Your task to perform on an android device: Is it going to rain this weekend? Image 0: 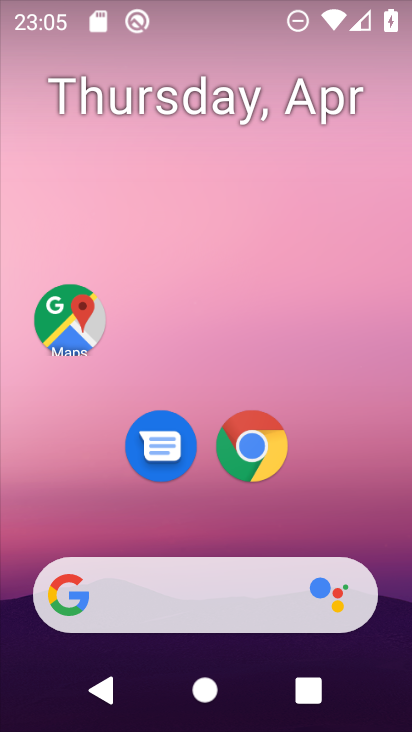
Step 0: drag from (186, 436) to (181, 229)
Your task to perform on an android device: Is it going to rain this weekend? Image 1: 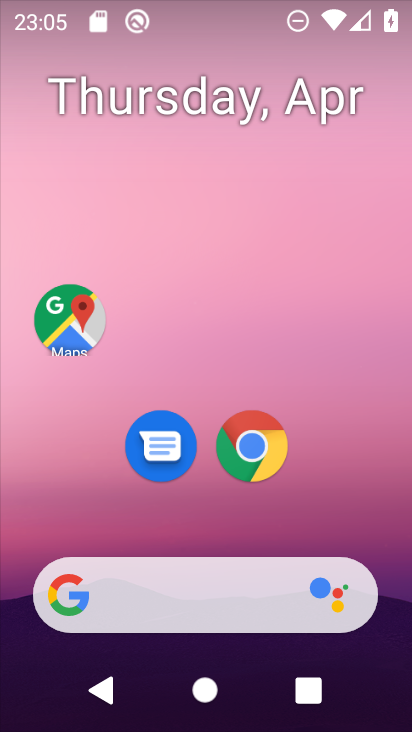
Step 1: drag from (196, 509) to (180, 123)
Your task to perform on an android device: Is it going to rain this weekend? Image 2: 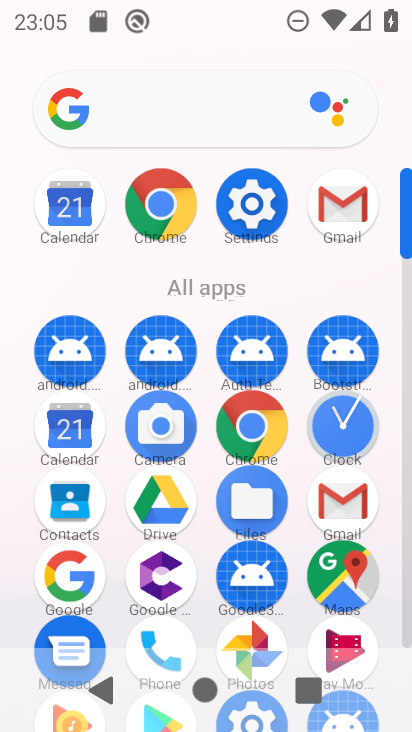
Step 2: click (163, 208)
Your task to perform on an android device: Is it going to rain this weekend? Image 3: 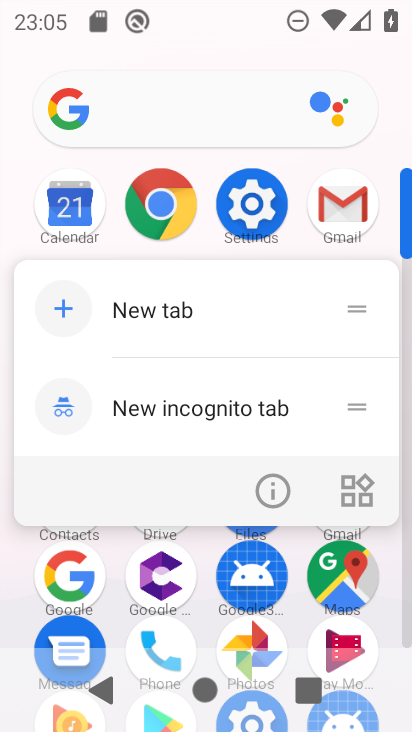
Step 3: click (263, 457)
Your task to perform on an android device: Is it going to rain this weekend? Image 4: 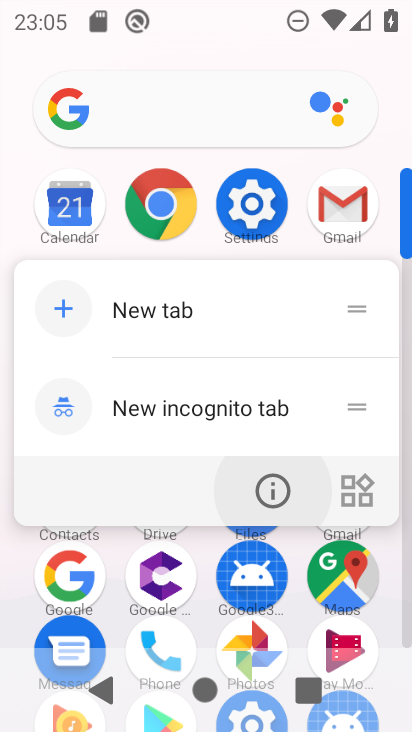
Step 4: click (270, 470)
Your task to perform on an android device: Is it going to rain this weekend? Image 5: 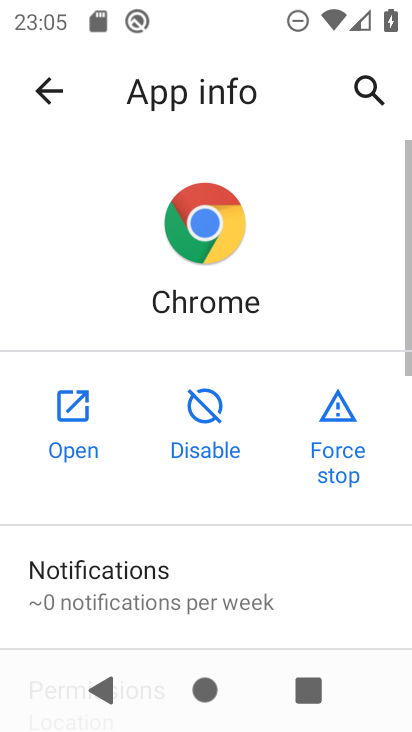
Step 5: click (66, 430)
Your task to perform on an android device: Is it going to rain this weekend? Image 6: 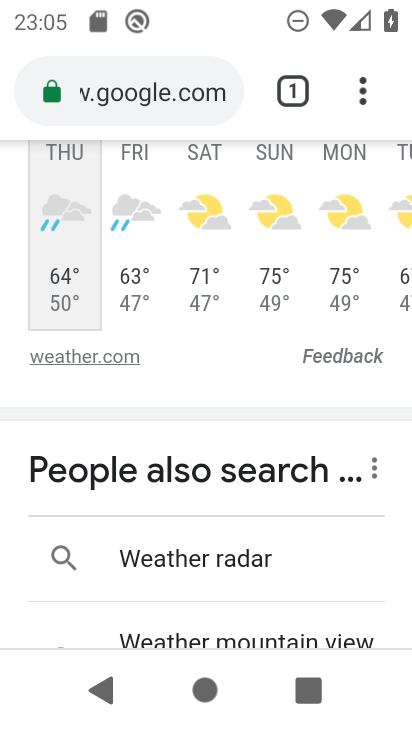
Step 6: drag from (186, 187) to (241, 570)
Your task to perform on an android device: Is it going to rain this weekend? Image 7: 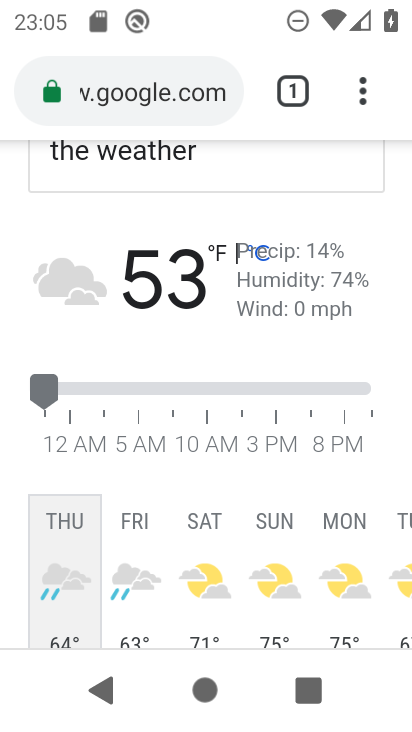
Step 7: click (127, 94)
Your task to perform on an android device: Is it going to rain this weekend? Image 8: 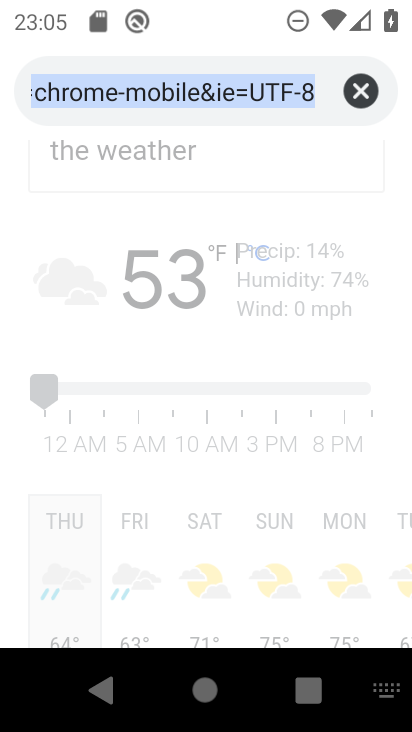
Step 8: click (361, 91)
Your task to perform on an android device: Is it going to rain this weekend? Image 9: 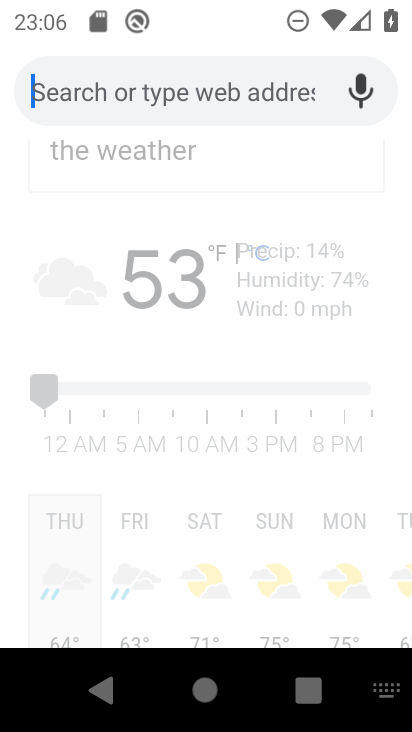
Step 9: click (119, 99)
Your task to perform on an android device: Is it going to rain this weekend? Image 10: 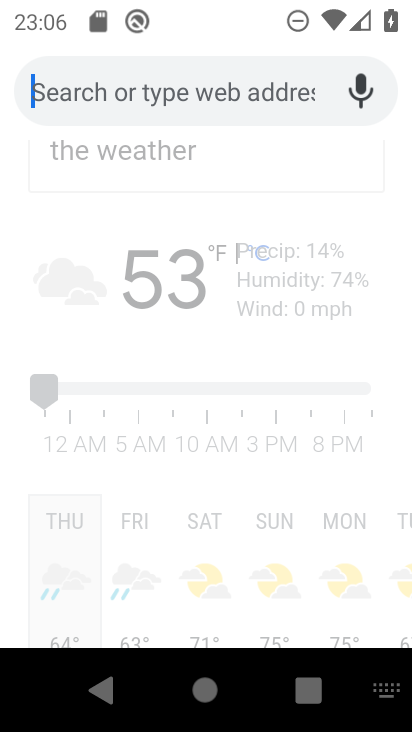
Step 10: type "rain this weekend"
Your task to perform on an android device: Is it going to rain this weekend? Image 11: 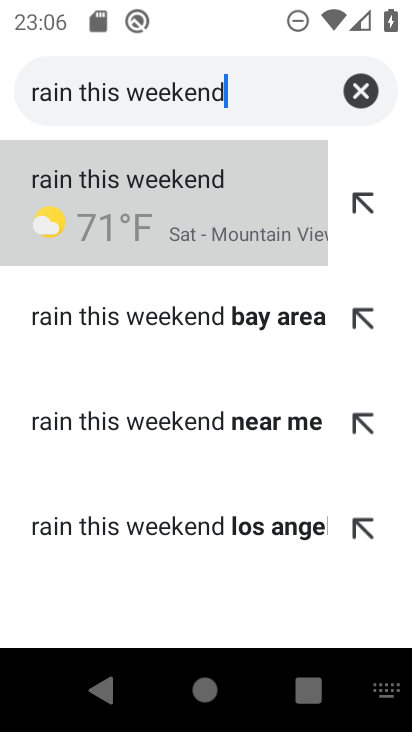
Step 11: click (144, 195)
Your task to perform on an android device: Is it going to rain this weekend? Image 12: 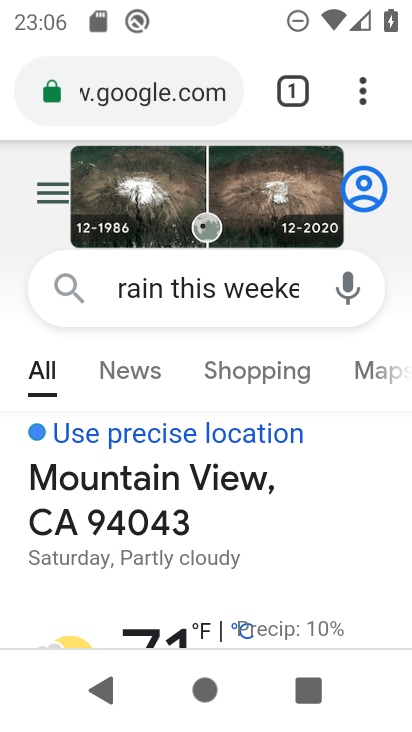
Step 12: task complete